Your task to perform on an android device: read, delete, or share a saved page in the chrome app Image 0: 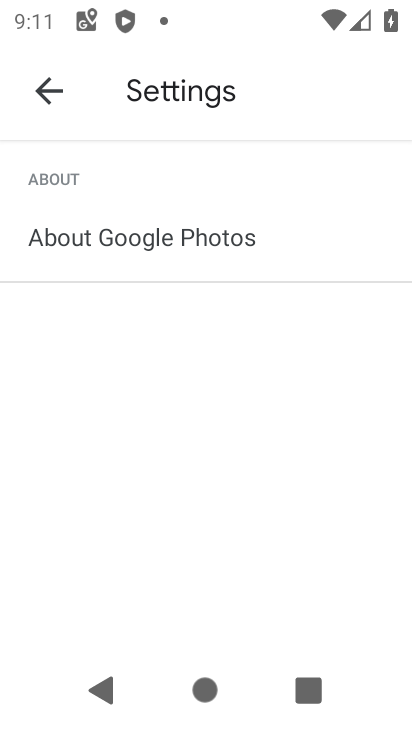
Step 0: press home button
Your task to perform on an android device: read, delete, or share a saved page in the chrome app Image 1: 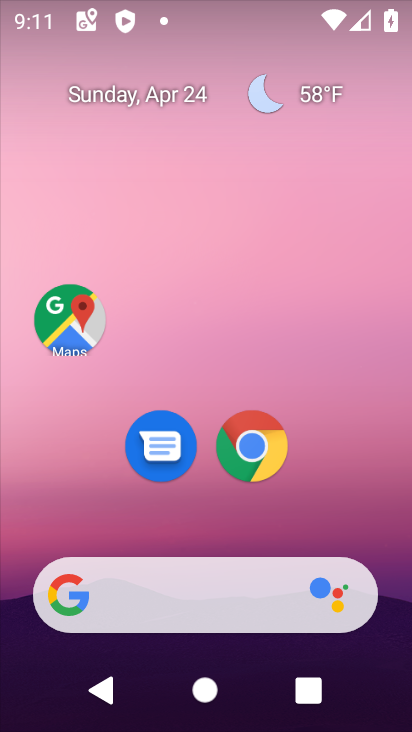
Step 1: click (249, 455)
Your task to perform on an android device: read, delete, or share a saved page in the chrome app Image 2: 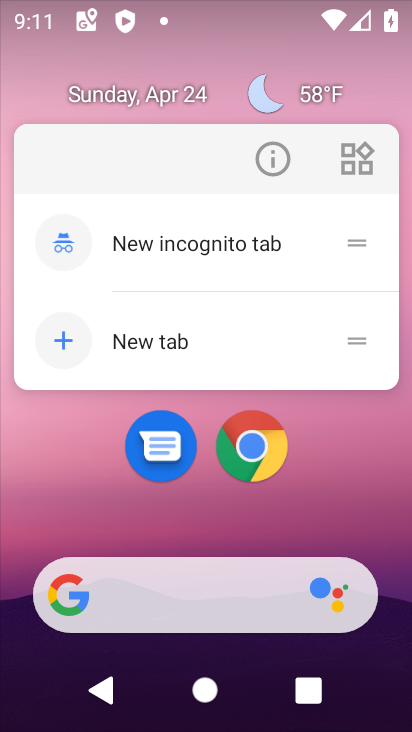
Step 2: click (247, 445)
Your task to perform on an android device: read, delete, or share a saved page in the chrome app Image 3: 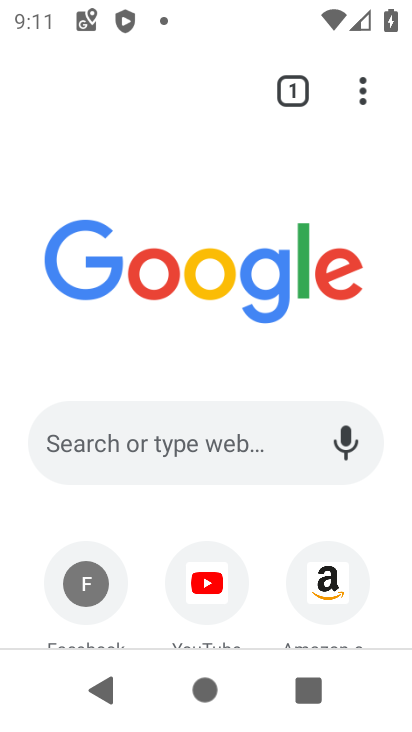
Step 3: drag from (363, 102) to (143, 300)
Your task to perform on an android device: read, delete, or share a saved page in the chrome app Image 4: 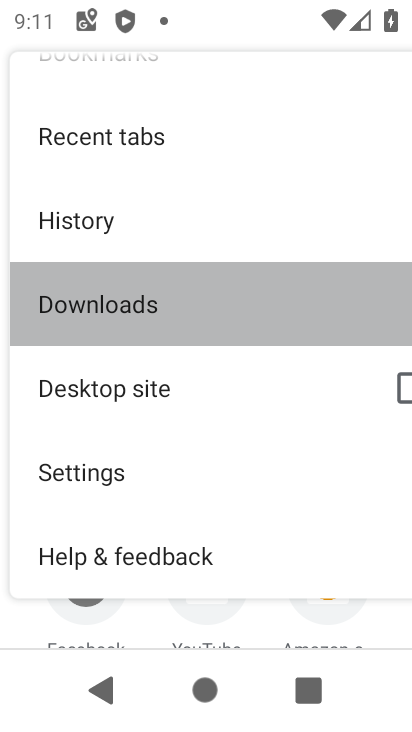
Step 4: click (143, 300)
Your task to perform on an android device: read, delete, or share a saved page in the chrome app Image 5: 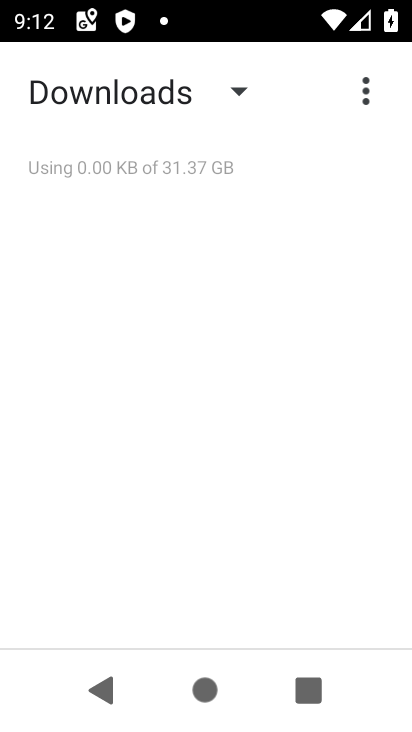
Step 5: click (210, 96)
Your task to perform on an android device: read, delete, or share a saved page in the chrome app Image 6: 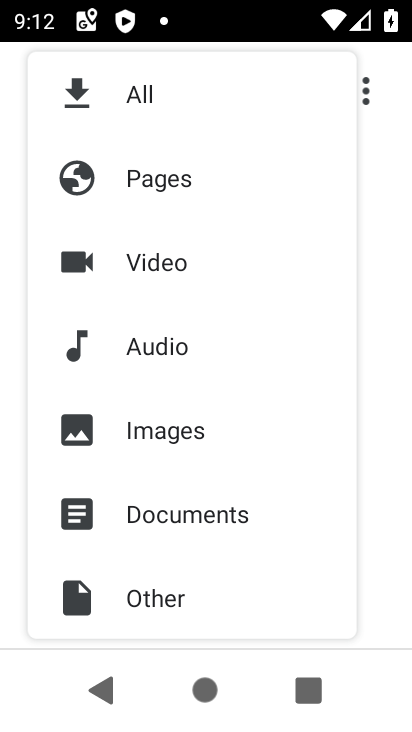
Step 6: click (160, 190)
Your task to perform on an android device: read, delete, or share a saved page in the chrome app Image 7: 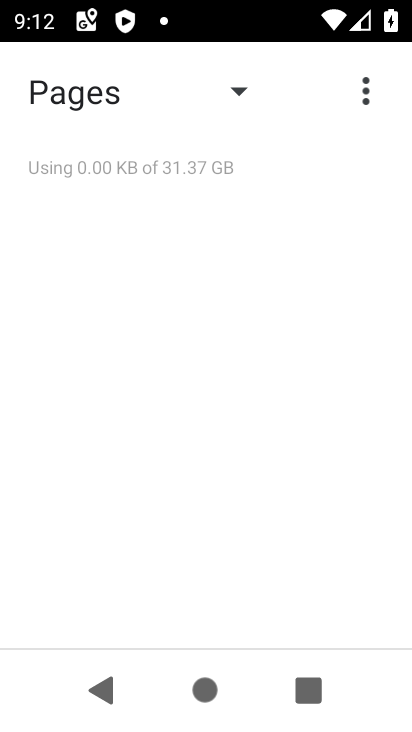
Step 7: task complete